Your task to perform on an android device: empty trash in the gmail app Image 0: 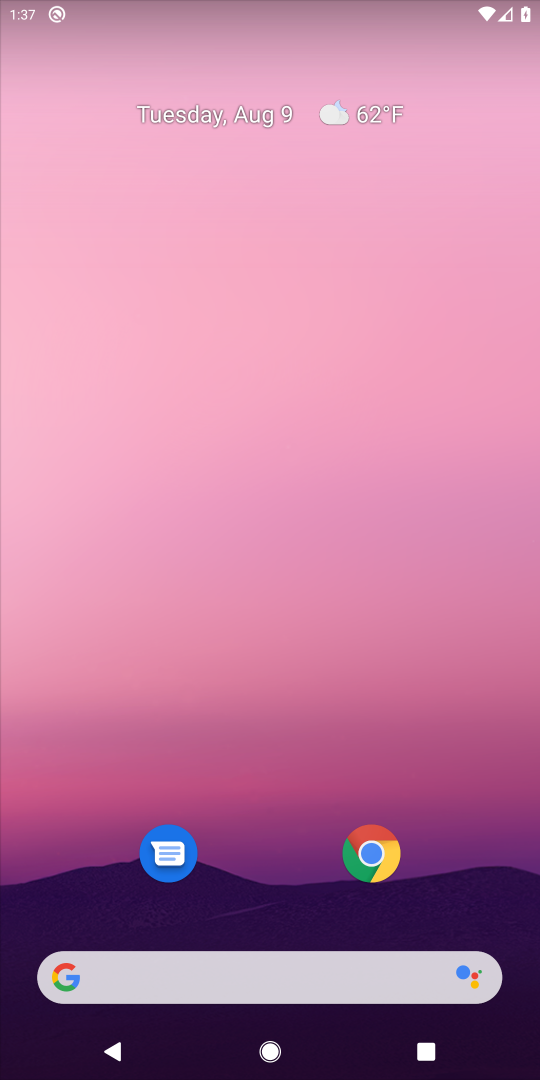
Step 0: drag from (267, 613) to (316, 9)
Your task to perform on an android device: empty trash in the gmail app Image 1: 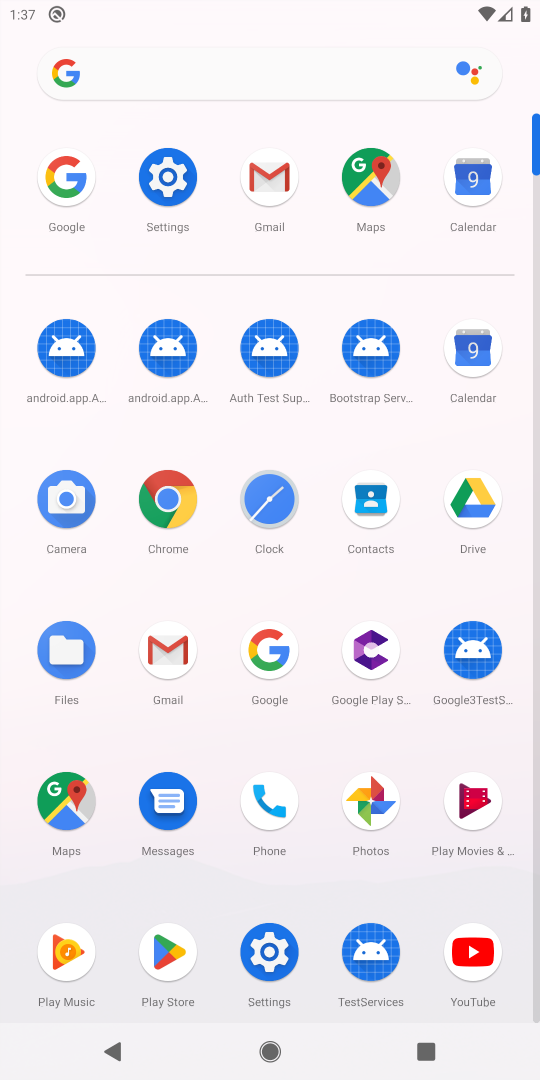
Step 1: click (264, 183)
Your task to perform on an android device: empty trash in the gmail app Image 2: 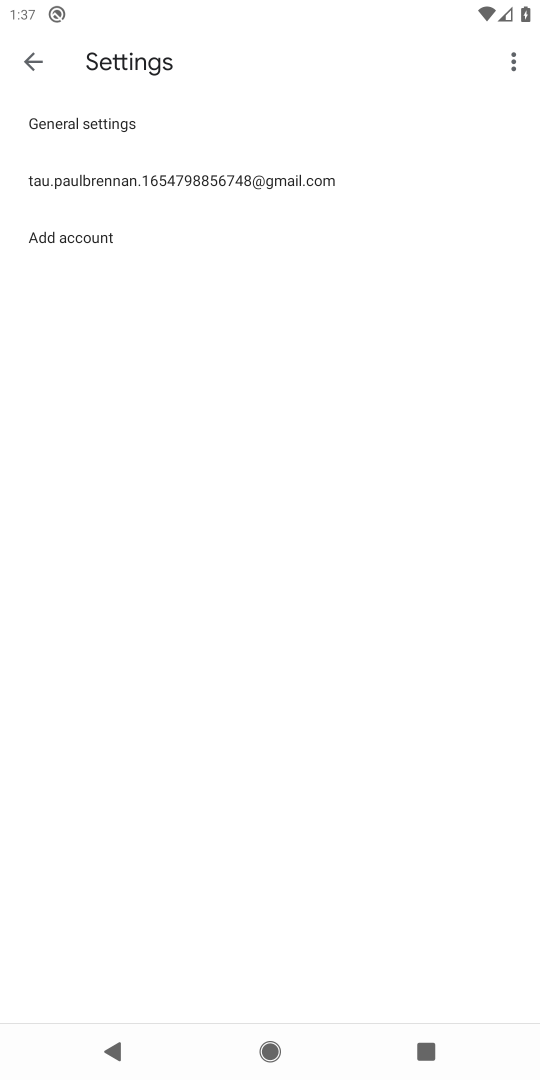
Step 2: click (23, 72)
Your task to perform on an android device: empty trash in the gmail app Image 3: 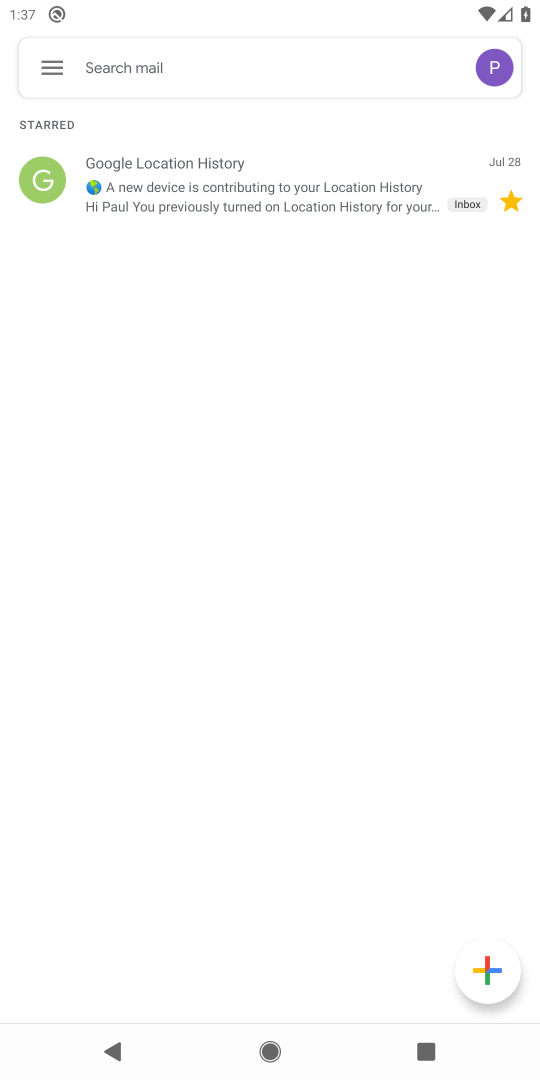
Step 3: click (54, 71)
Your task to perform on an android device: empty trash in the gmail app Image 4: 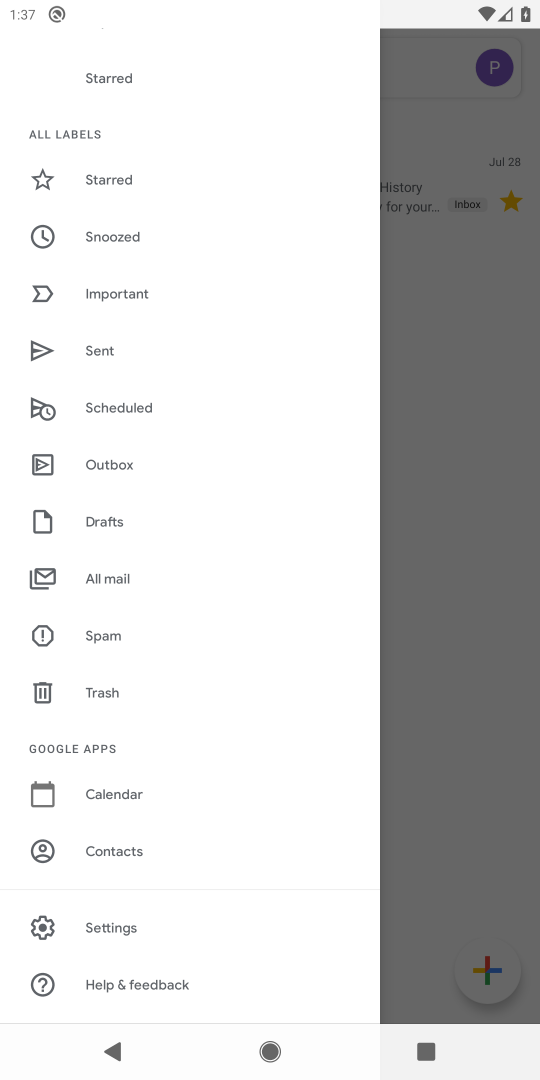
Step 4: click (106, 683)
Your task to perform on an android device: empty trash in the gmail app Image 5: 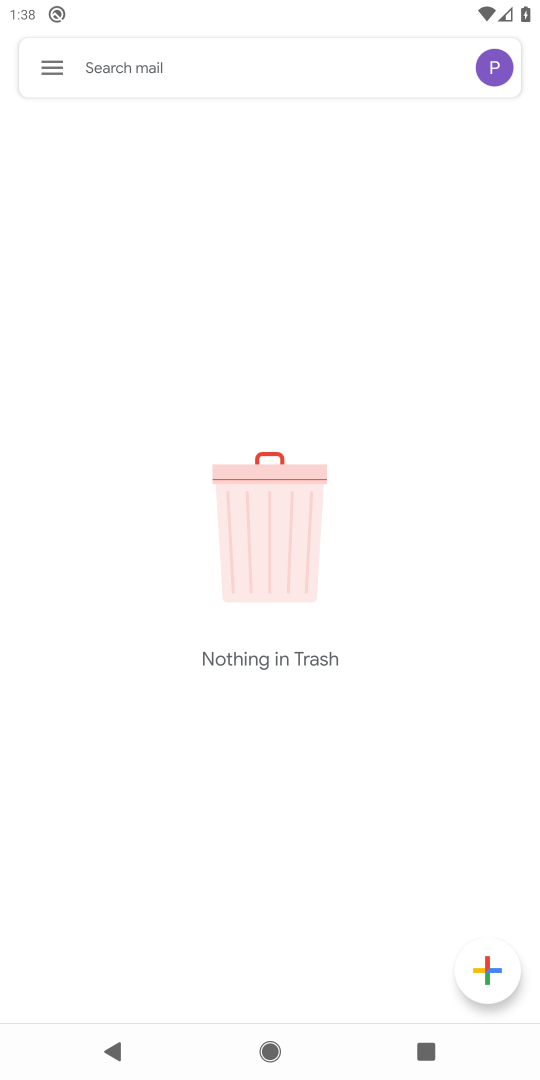
Step 5: task complete